Your task to perform on an android device: Search for "alienware aurora" on bestbuy, select the first entry, add it to the cart, then select checkout. Image 0: 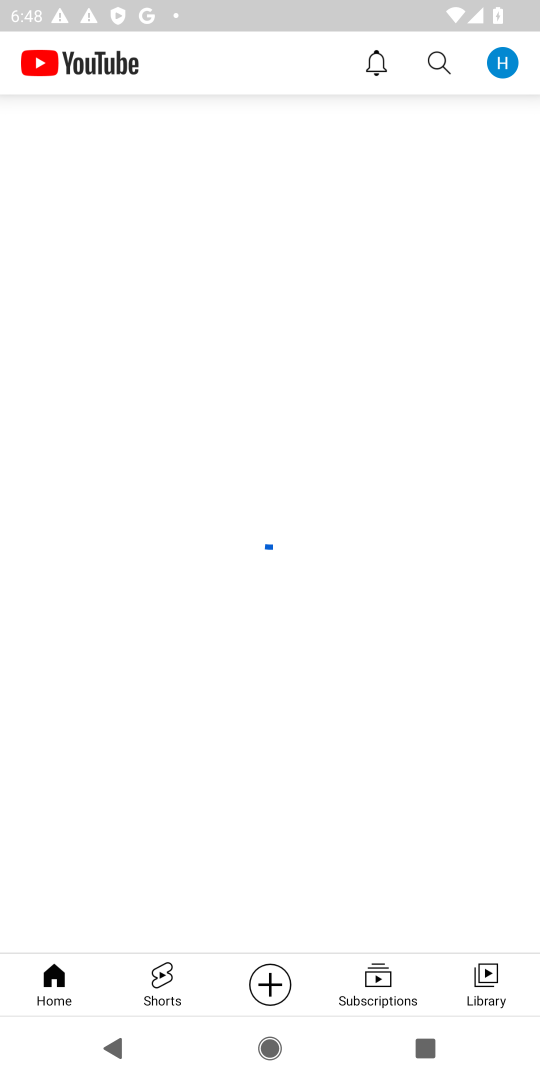
Step 0: press home button
Your task to perform on an android device: Search for "alienware aurora" on bestbuy, select the first entry, add it to the cart, then select checkout. Image 1: 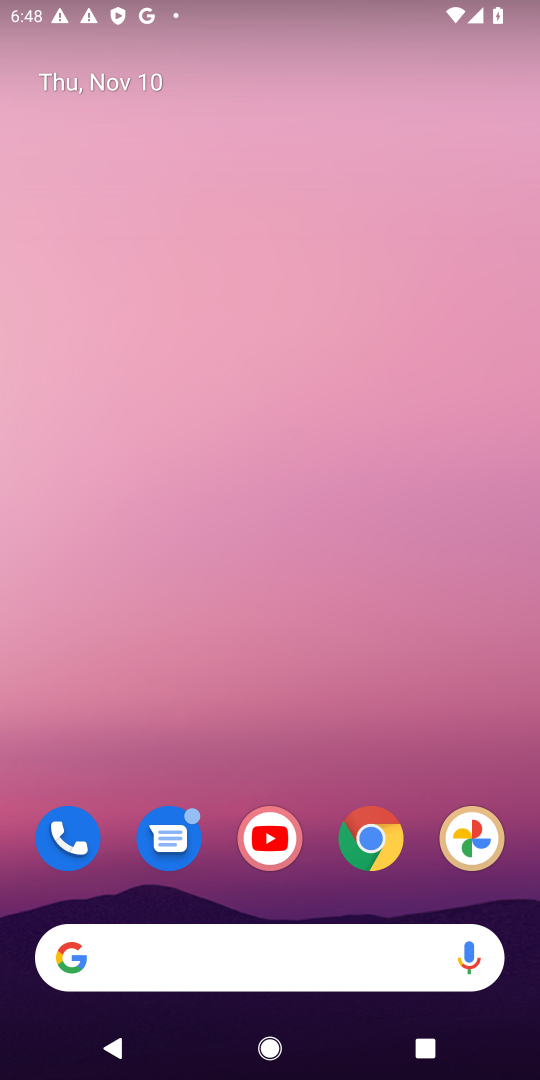
Step 1: drag from (313, 908) to (356, 108)
Your task to perform on an android device: Search for "alienware aurora" on bestbuy, select the first entry, add it to the cart, then select checkout. Image 2: 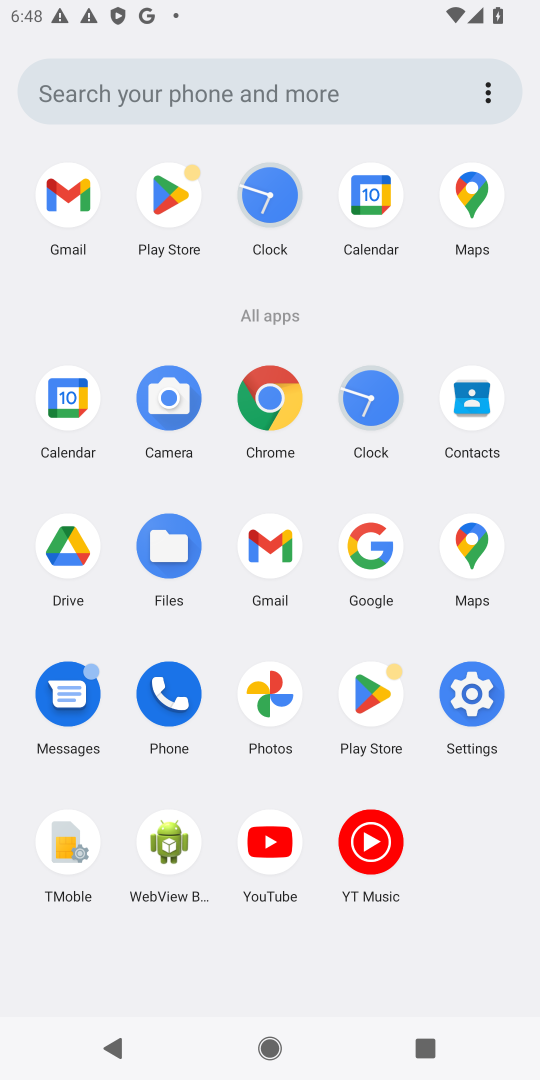
Step 2: click (281, 395)
Your task to perform on an android device: Search for "alienware aurora" on bestbuy, select the first entry, add it to the cart, then select checkout. Image 3: 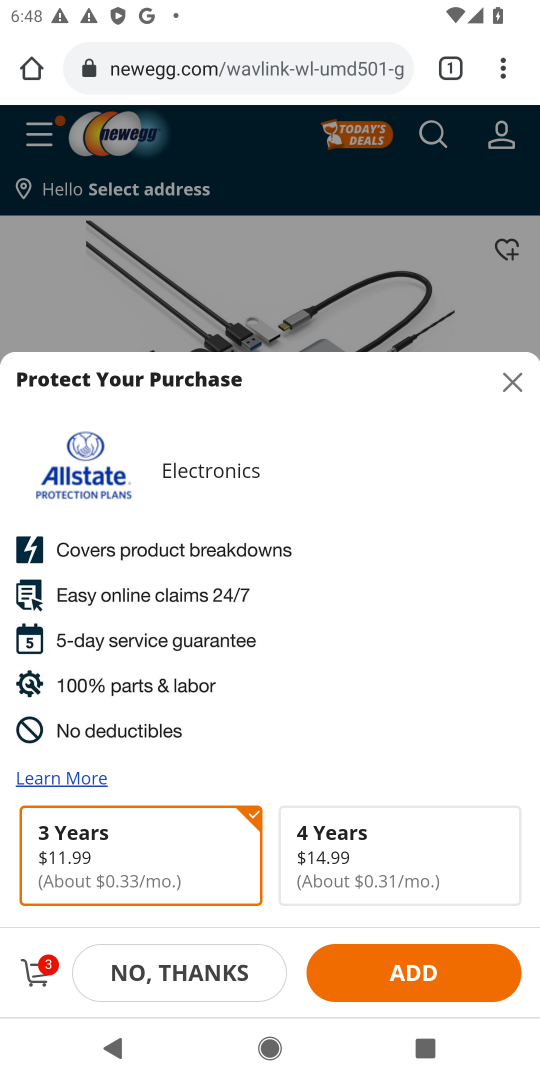
Step 3: click (325, 58)
Your task to perform on an android device: Search for "alienware aurora" on bestbuy, select the first entry, add it to the cart, then select checkout. Image 4: 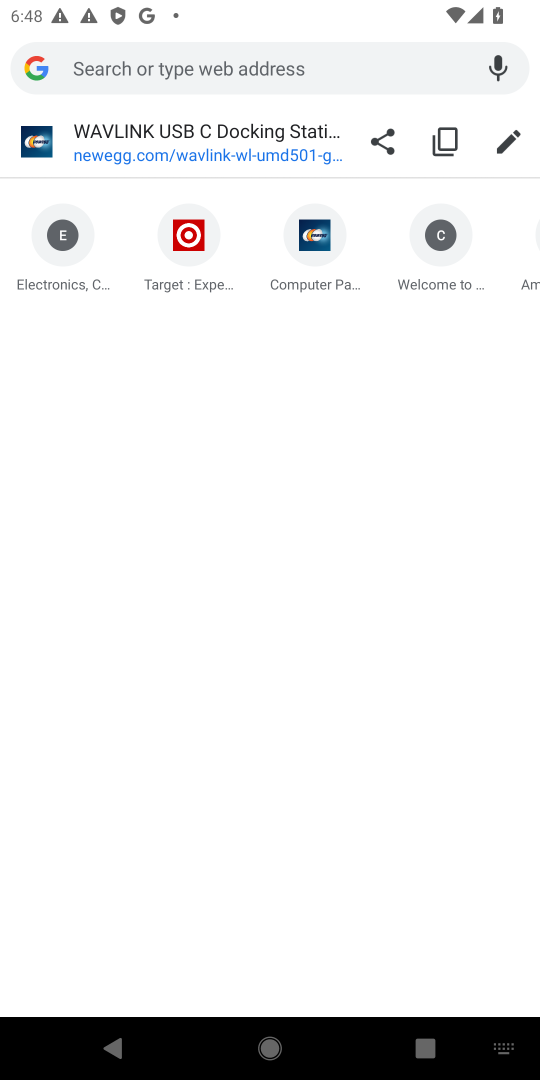
Step 4: type "bestbuy.com"
Your task to perform on an android device: Search for "alienware aurora" on bestbuy, select the first entry, add it to the cart, then select checkout. Image 5: 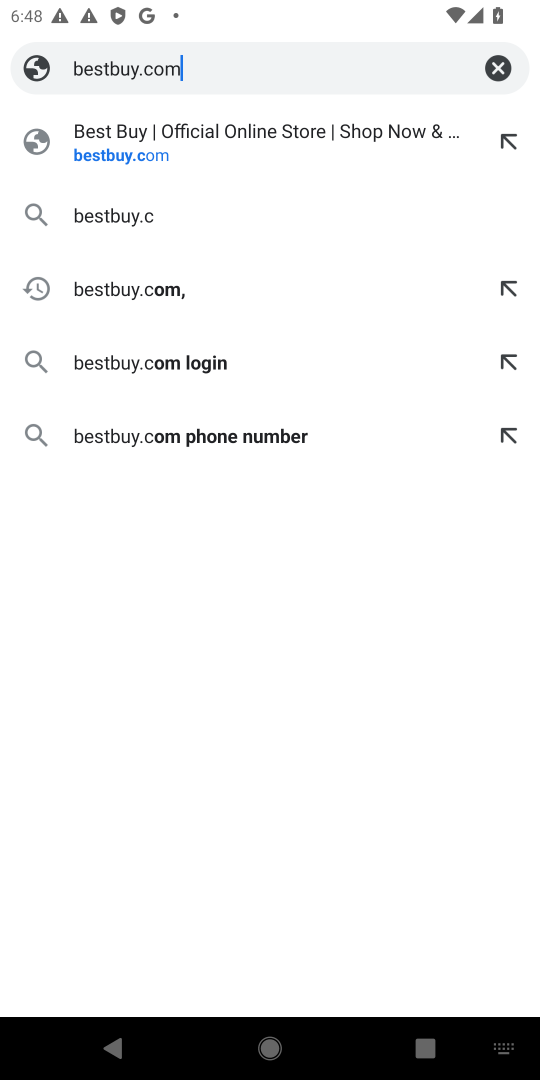
Step 5: press enter
Your task to perform on an android device: Search for "alienware aurora" on bestbuy, select the first entry, add it to the cart, then select checkout. Image 6: 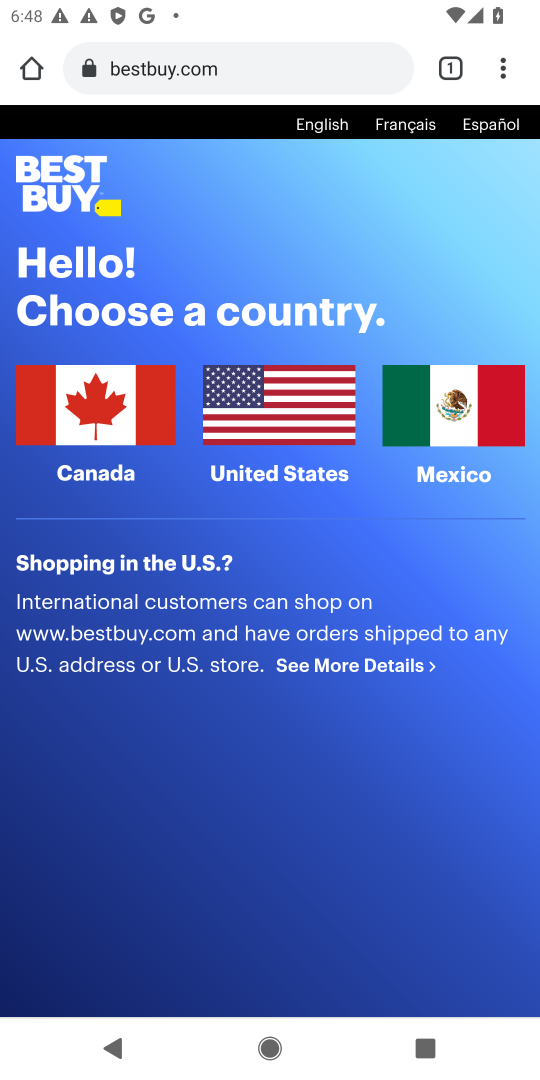
Step 6: click (63, 416)
Your task to perform on an android device: Search for "alienware aurora" on bestbuy, select the first entry, add it to the cart, then select checkout. Image 7: 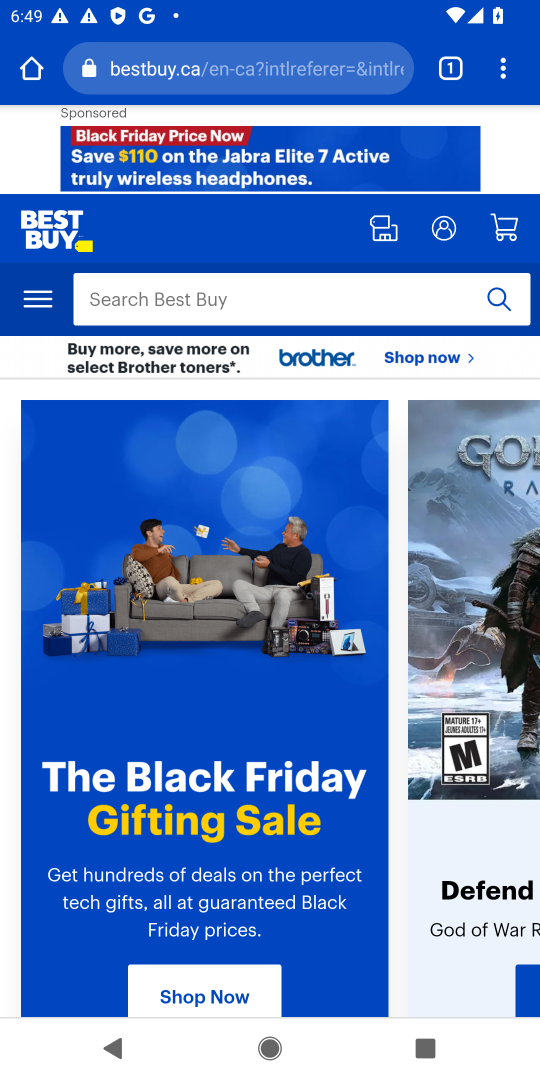
Step 7: click (200, 307)
Your task to perform on an android device: Search for "alienware aurora" on bestbuy, select the first entry, add it to the cart, then select checkout. Image 8: 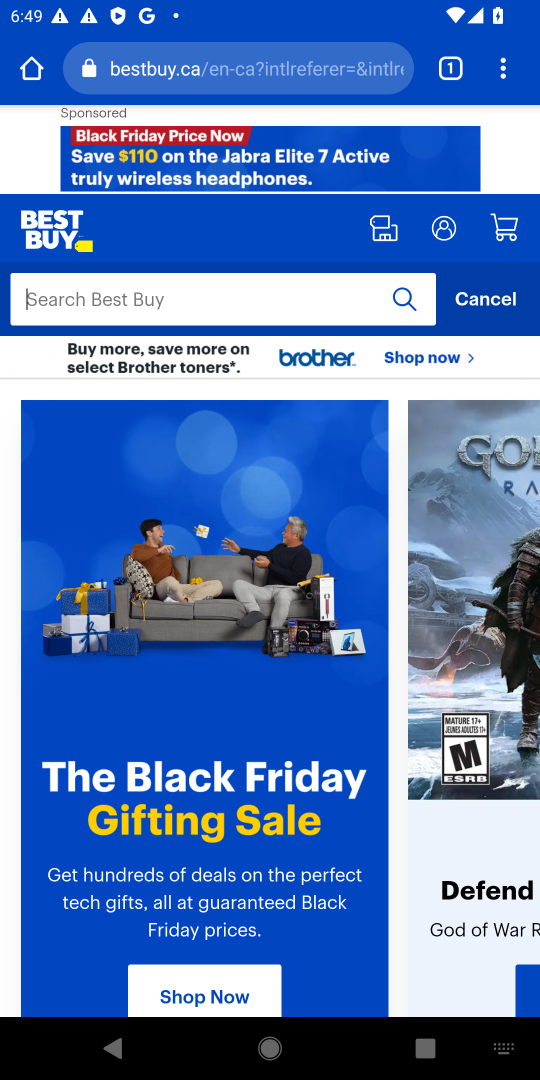
Step 8: type "alienware aurora"
Your task to perform on an android device: Search for "alienware aurora" on bestbuy, select the first entry, add it to the cart, then select checkout. Image 9: 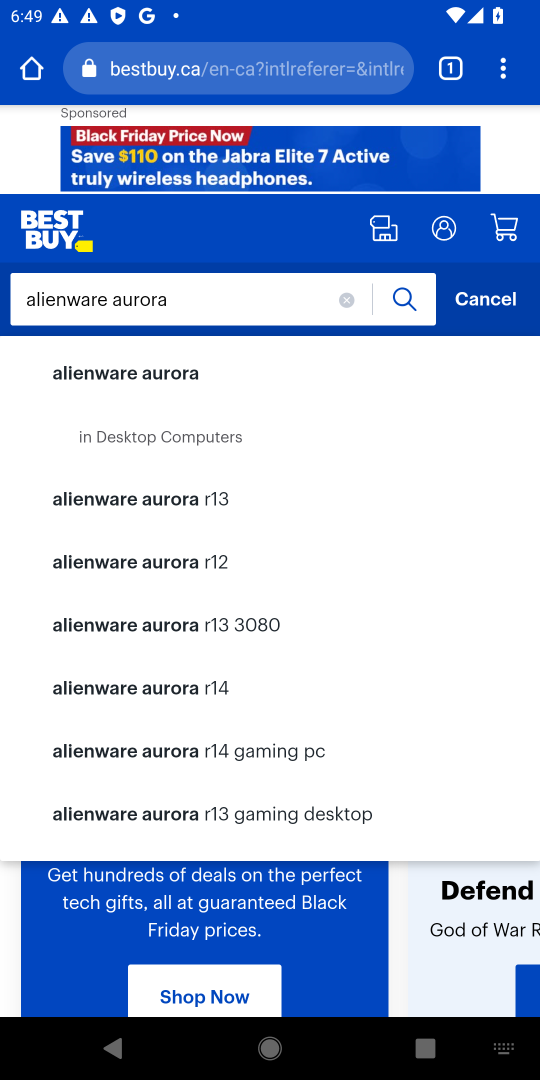
Step 9: press enter
Your task to perform on an android device: Search for "alienware aurora" on bestbuy, select the first entry, add it to the cart, then select checkout. Image 10: 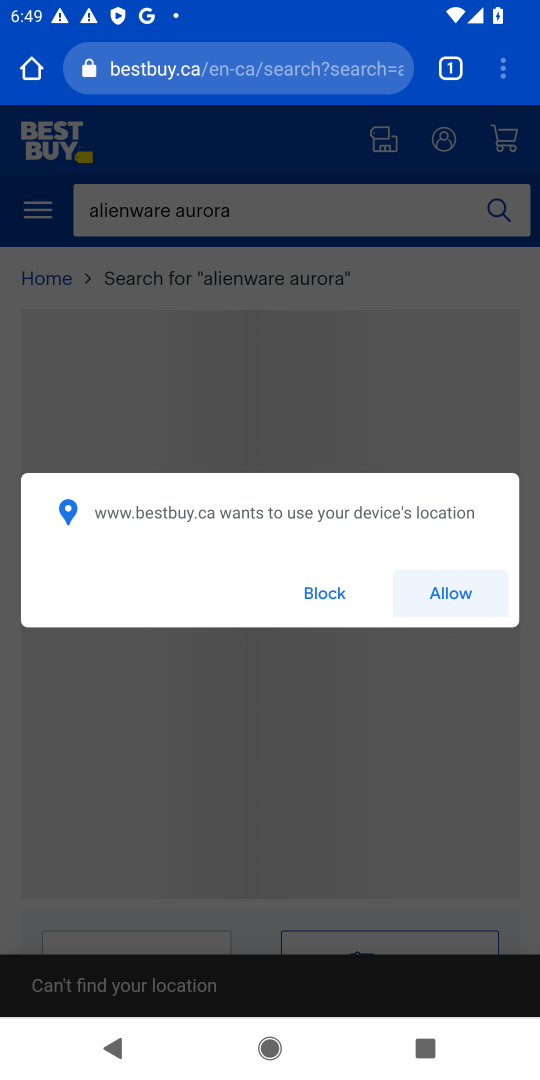
Step 10: click (339, 581)
Your task to perform on an android device: Search for "alienware aurora" on bestbuy, select the first entry, add it to the cart, then select checkout. Image 11: 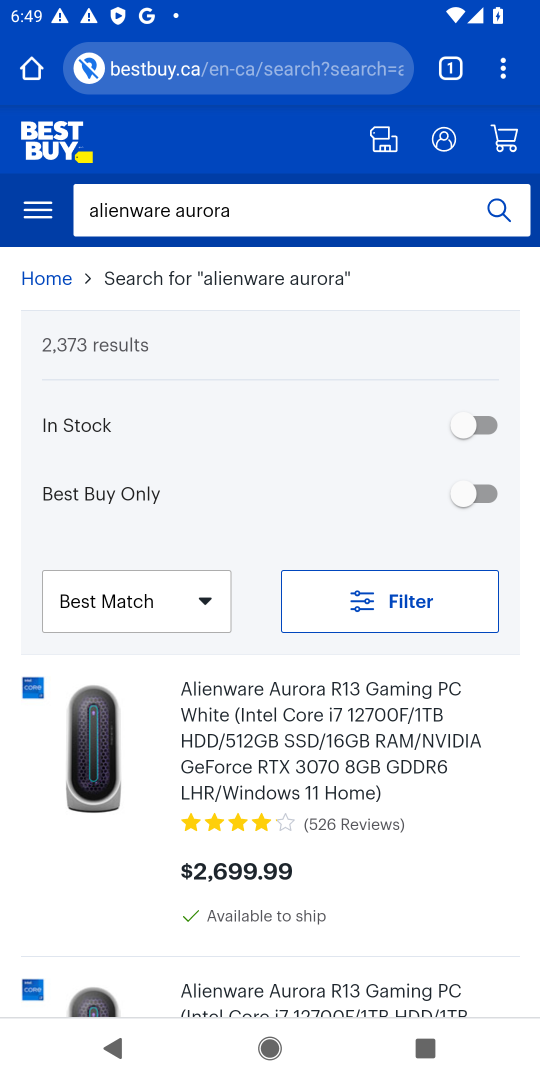
Step 11: click (359, 750)
Your task to perform on an android device: Search for "alienware aurora" on bestbuy, select the first entry, add it to the cart, then select checkout. Image 12: 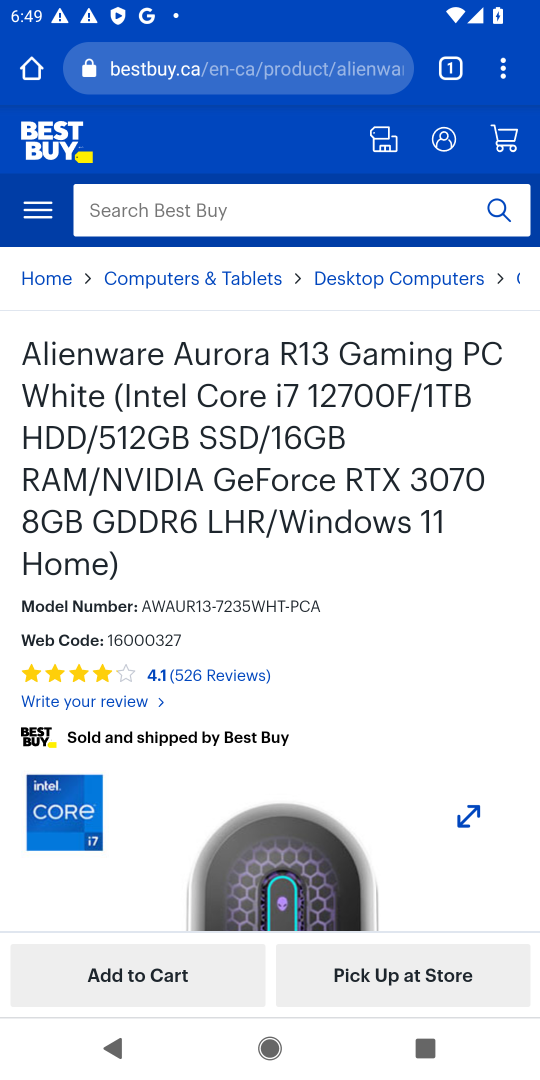
Step 12: drag from (313, 804) to (462, 35)
Your task to perform on an android device: Search for "alienware aurora" on bestbuy, select the first entry, add it to the cart, then select checkout. Image 13: 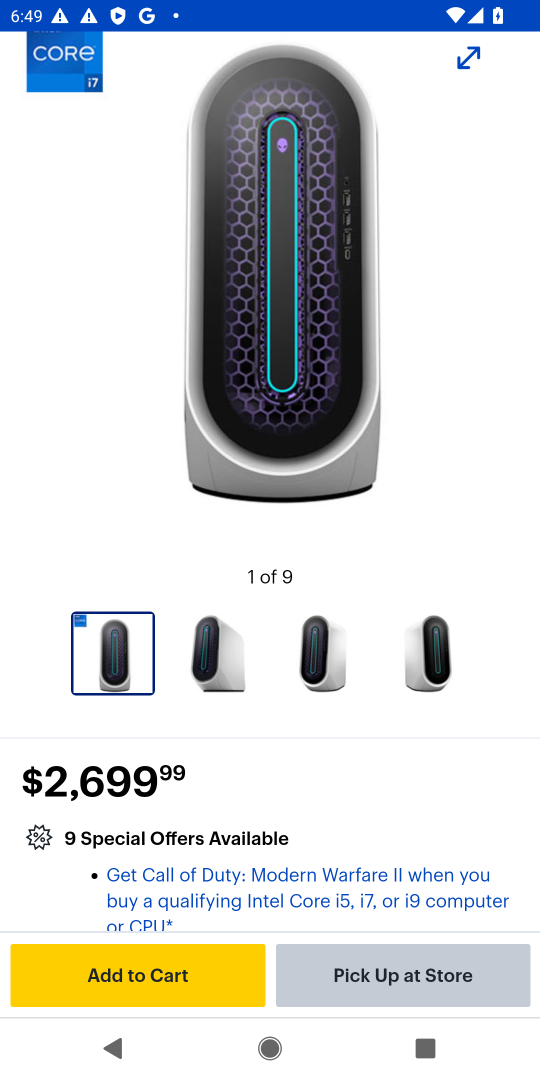
Step 13: click (173, 996)
Your task to perform on an android device: Search for "alienware aurora" on bestbuy, select the first entry, add it to the cart, then select checkout. Image 14: 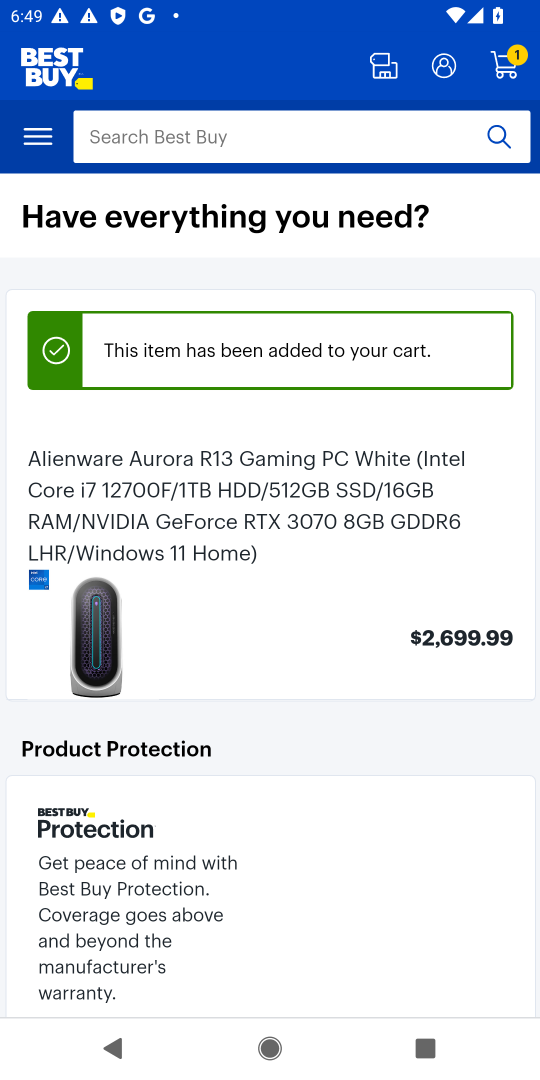
Step 14: drag from (347, 781) to (384, 73)
Your task to perform on an android device: Search for "alienware aurora" on bestbuy, select the first entry, add it to the cart, then select checkout. Image 15: 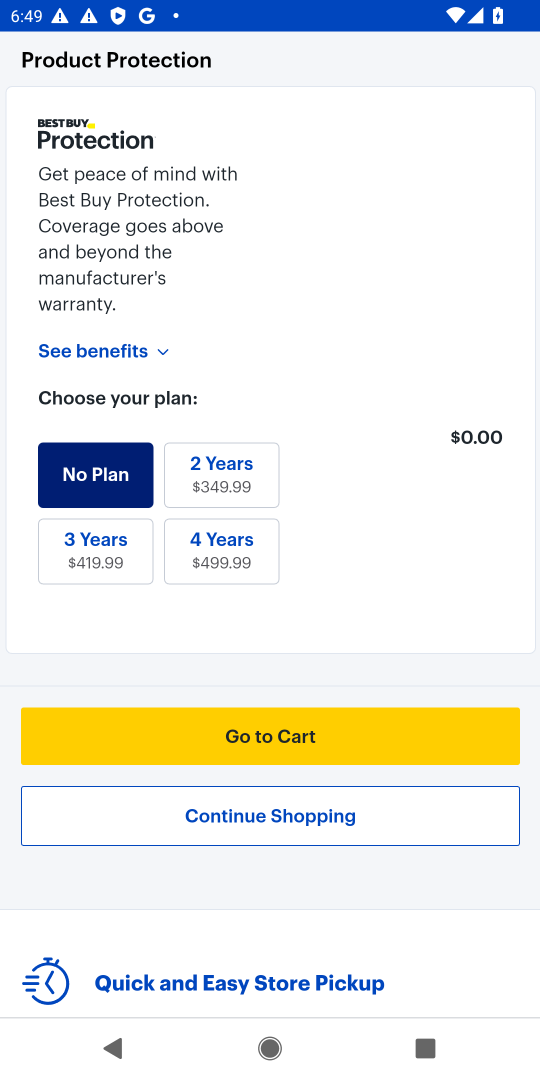
Step 15: click (340, 709)
Your task to perform on an android device: Search for "alienware aurora" on bestbuy, select the first entry, add it to the cart, then select checkout. Image 16: 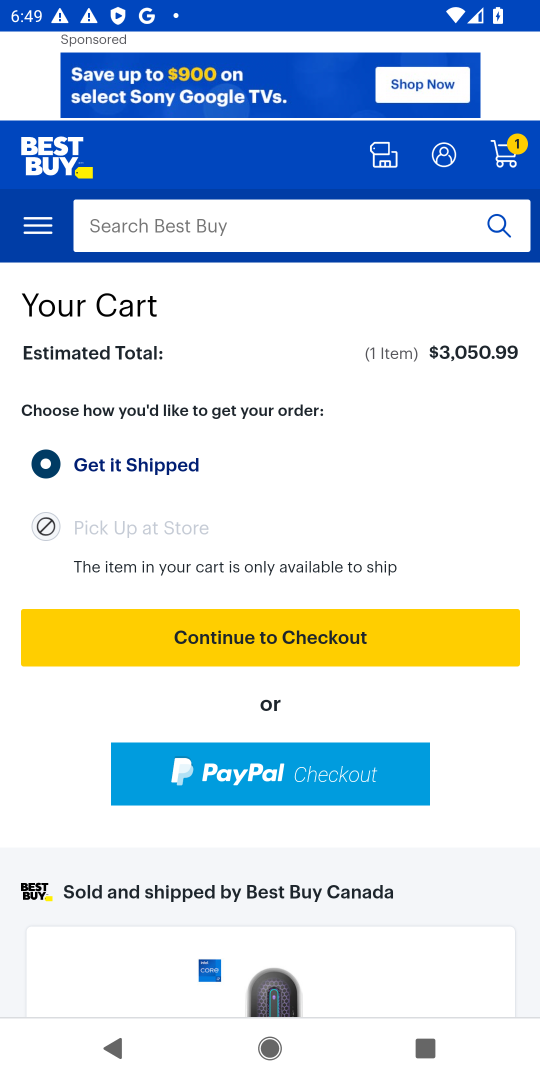
Step 16: click (311, 653)
Your task to perform on an android device: Search for "alienware aurora" on bestbuy, select the first entry, add it to the cart, then select checkout. Image 17: 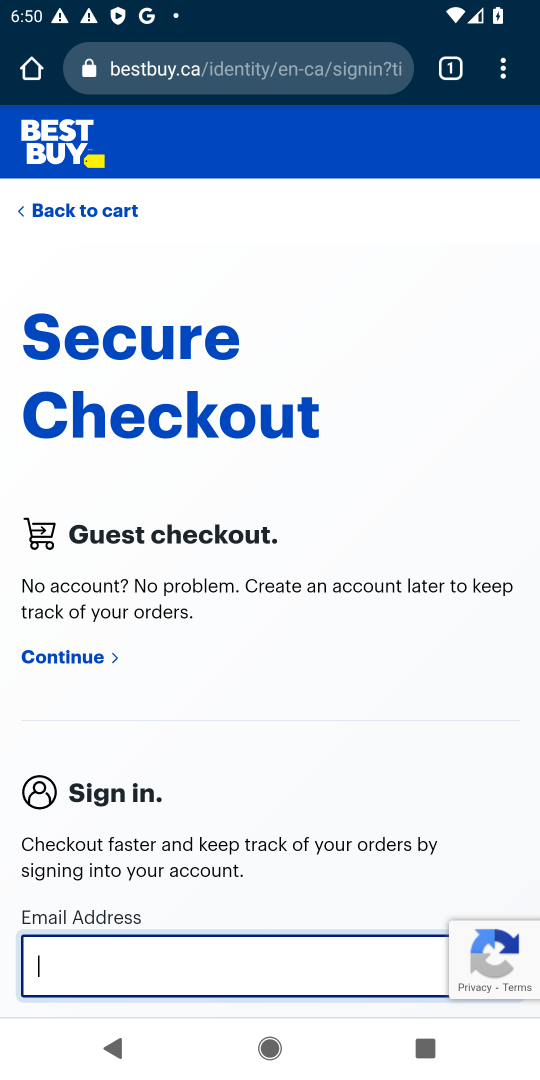
Step 17: task complete